Your task to perform on an android device: What's on my calendar today? Image 0: 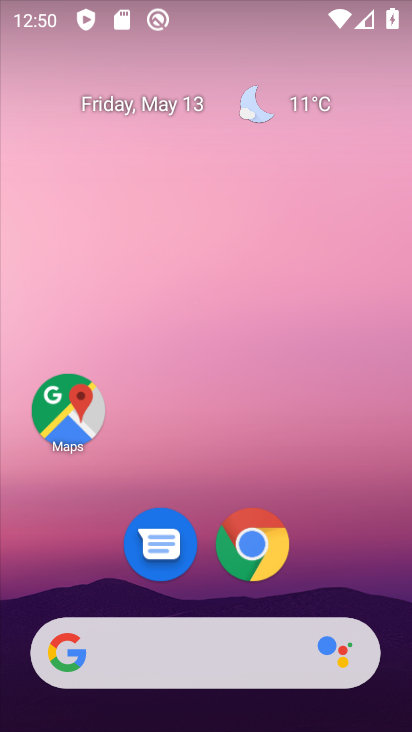
Step 0: press home button
Your task to perform on an android device: What's on my calendar today? Image 1: 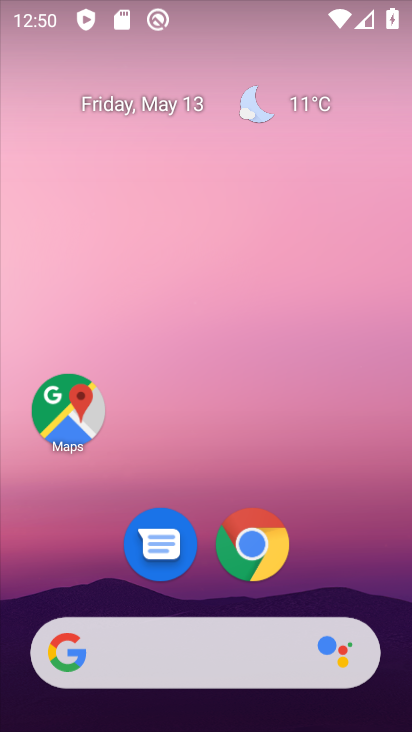
Step 1: drag from (226, 508) to (318, 187)
Your task to perform on an android device: What's on my calendar today? Image 2: 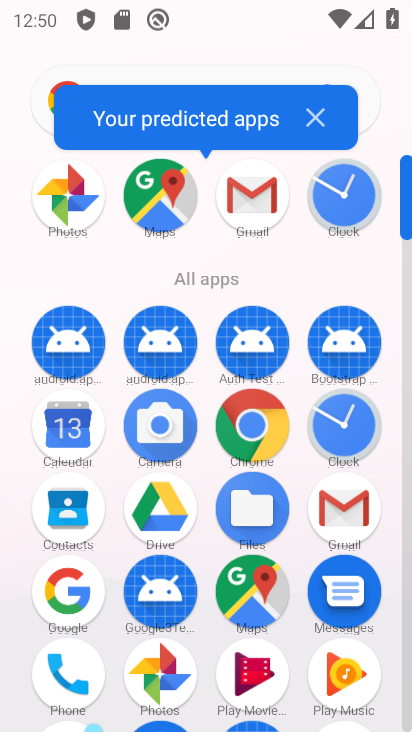
Step 2: click (54, 435)
Your task to perform on an android device: What's on my calendar today? Image 3: 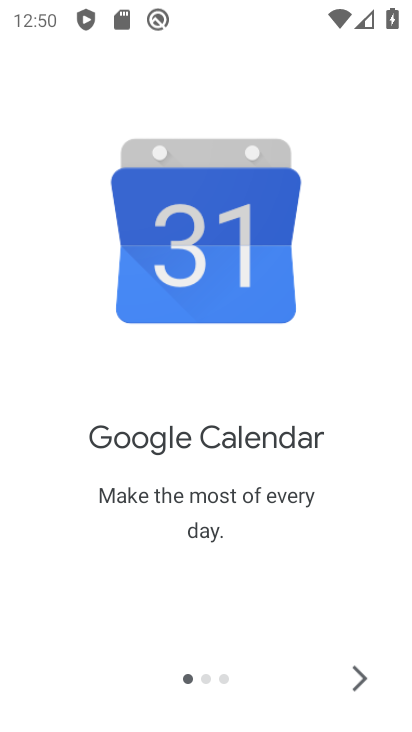
Step 3: click (357, 683)
Your task to perform on an android device: What's on my calendar today? Image 4: 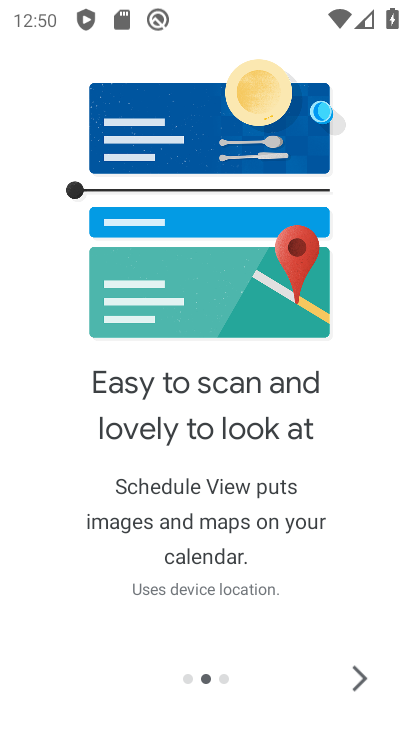
Step 4: click (351, 682)
Your task to perform on an android device: What's on my calendar today? Image 5: 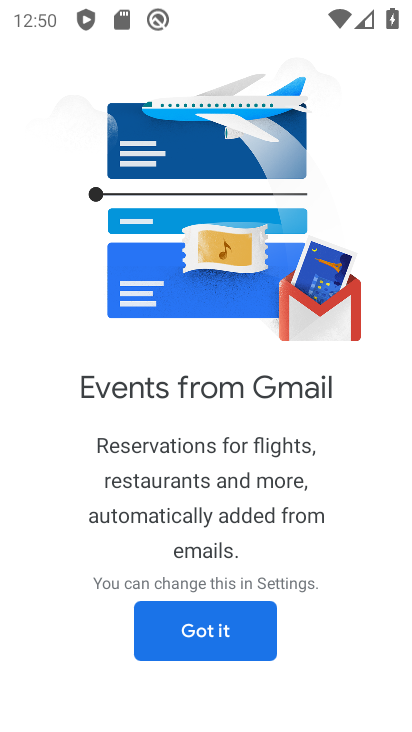
Step 5: click (259, 646)
Your task to perform on an android device: What's on my calendar today? Image 6: 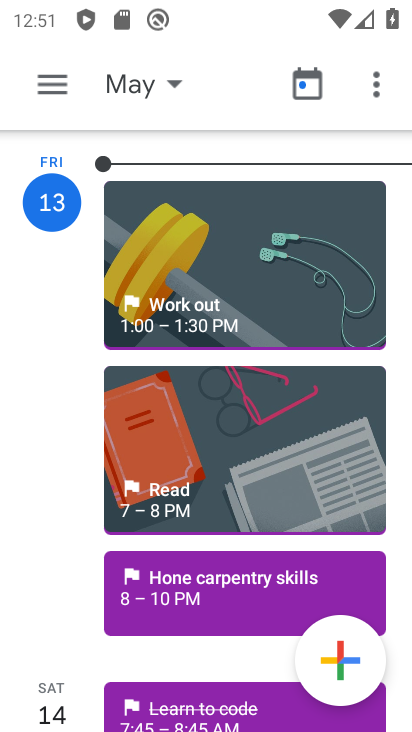
Step 6: click (164, 89)
Your task to perform on an android device: What's on my calendar today? Image 7: 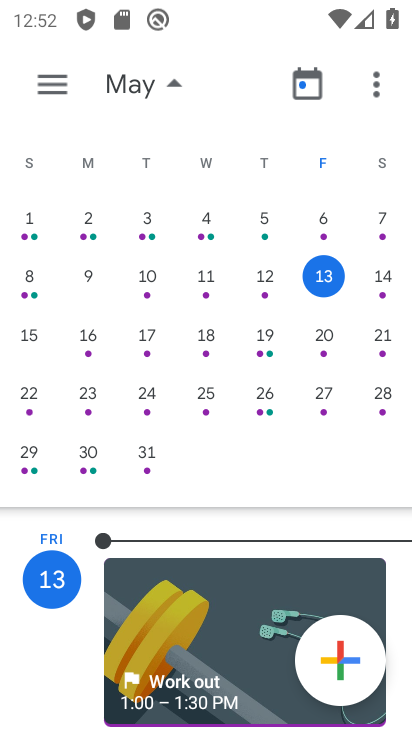
Step 7: click (319, 268)
Your task to perform on an android device: What's on my calendar today? Image 8: 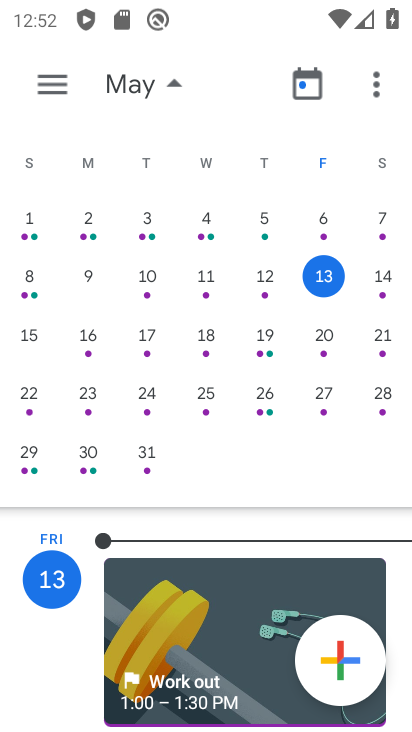
Step 8: task complete